Your task to perform on an android device: Is it going to rain tomorrow? Image 0: 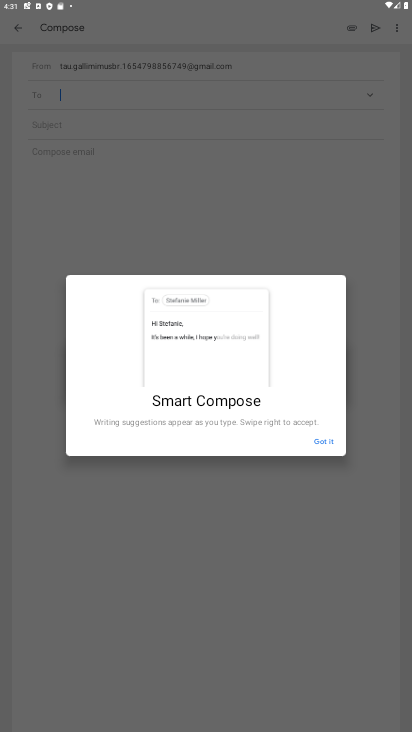
Step 0: press home button
Your task to perform on an android device: Is it going to rain tomorrow? Image 1: 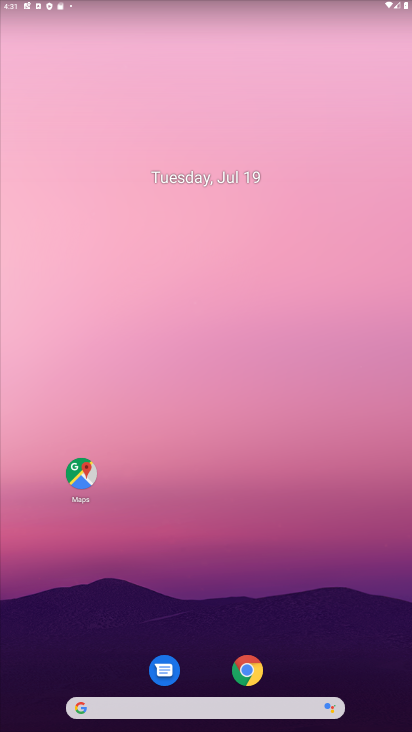
Step 1: drag from (292, 719) to (335, 92)
Your task to perform on an android device: Is it going to rain tomorrow? Image 2: 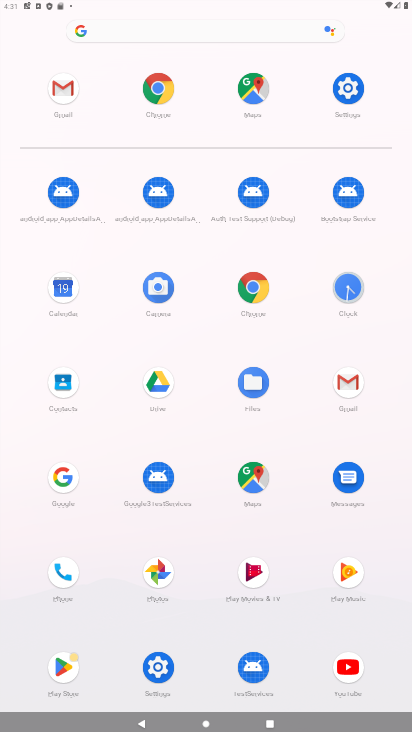
Step 2: click (334, 93)
Your task to perform on an android device: Is it going to rain tomorrow? Image 3: 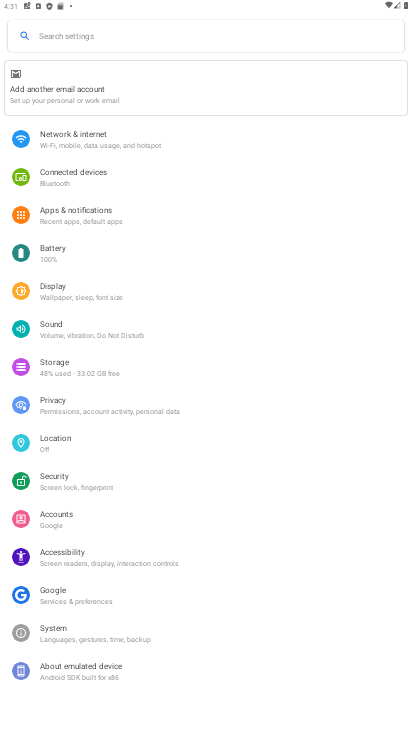
Step 3: press home button
Your task to perform on an android device: Is it going to rain tomorrow? Image 4: 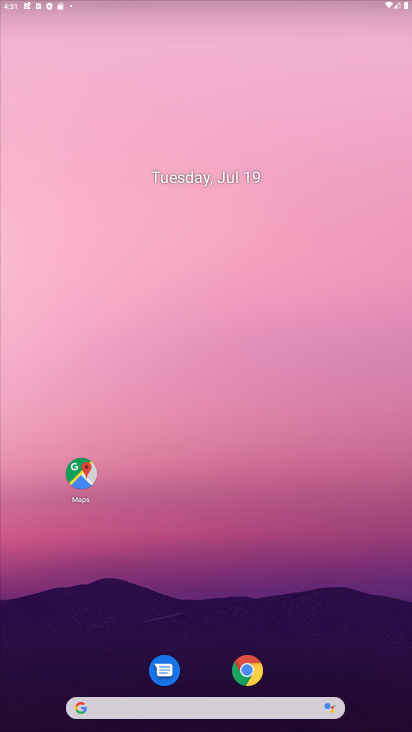
Step 4: drag from (308, 678) to (328, 124)
Your task to perform on an android device: Is it going to rain tomorrow? Image 5: 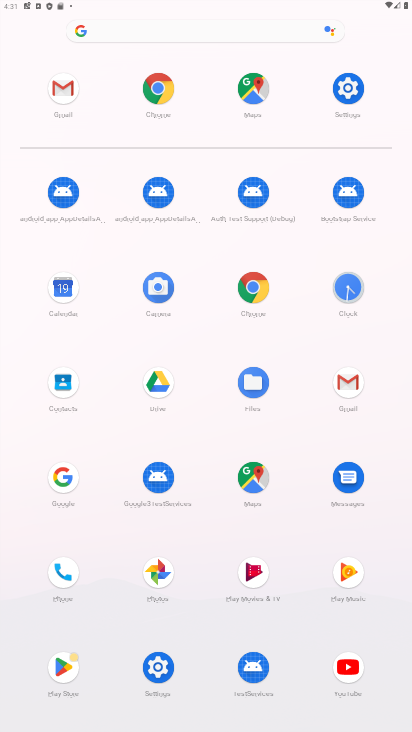
Step 5: click (271, 281)
Your task to perform on an android device: Is it going to rain tomorrow? Image 6: 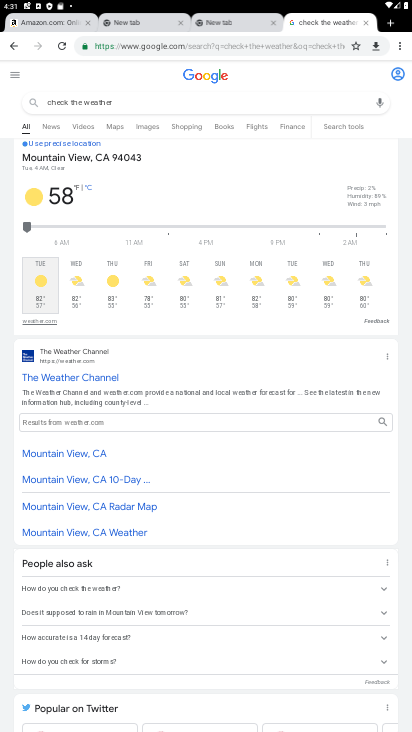
Step 6: click (235, 40)
Your task to perform on an android device: Is it going to rain tomorrow? Image 7: 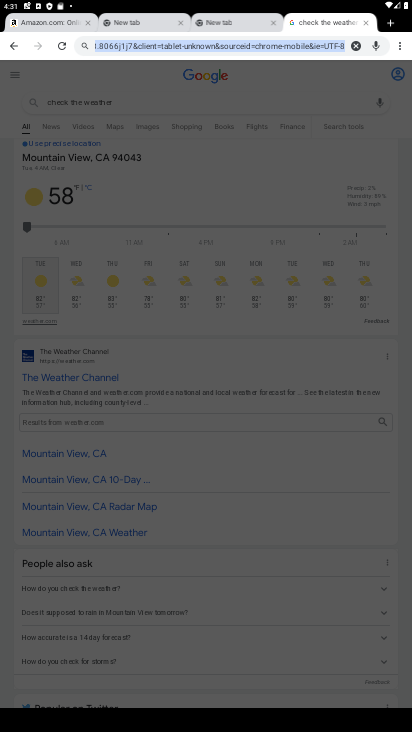
Step 7: type "rain tomorrow"
Your task to perform on an android device: Is it going to rain tomorrow? Image 8: 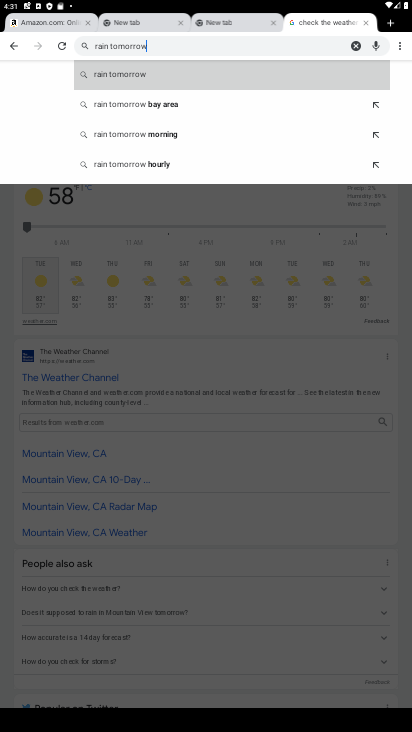
Step 8: click (150, 69)
Your task to perform on an android device: Is it going to rain tomorrow? Image 9: 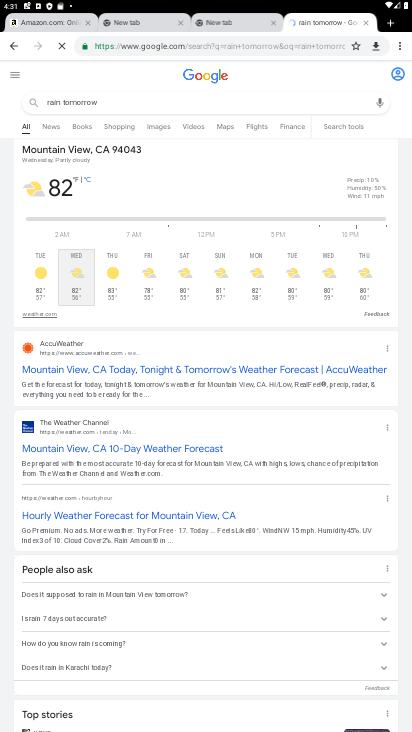
Step 9: task complete